Your task to perform on an android device: turn off notifications in google photos Image 0: 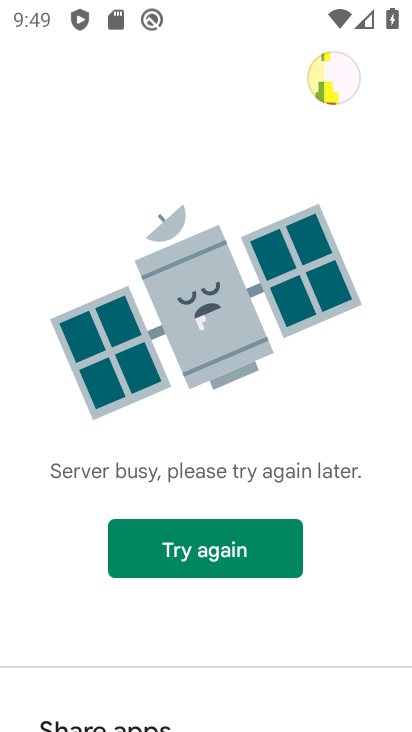
Step 0: press home button
Your task to perform on an android device: turn off notifications in google photos Image 1: 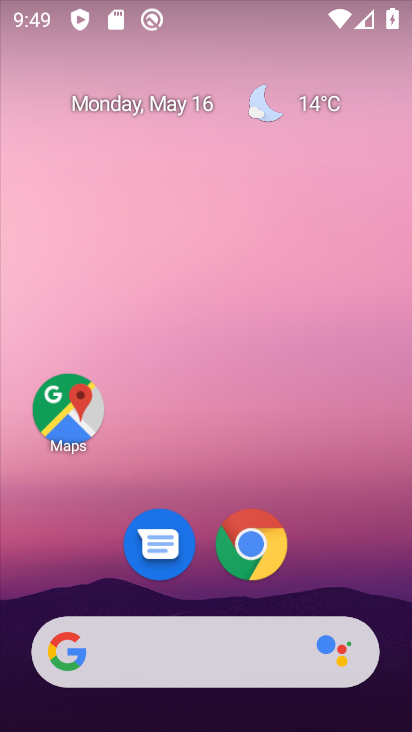
Step 1: drag from (325, 577) to (381, 176)
Your task to perform on an android device: turn off notifications in google photos Image 2: 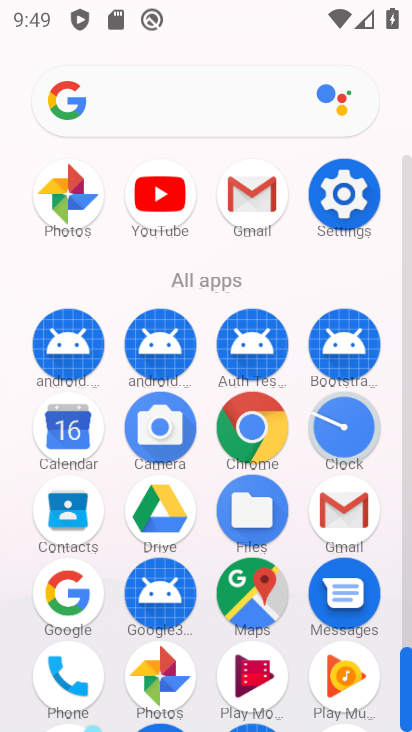
Step 2: click (78, 196)
Your task to perform on an android device: turn off notifications in google photos Image 3: 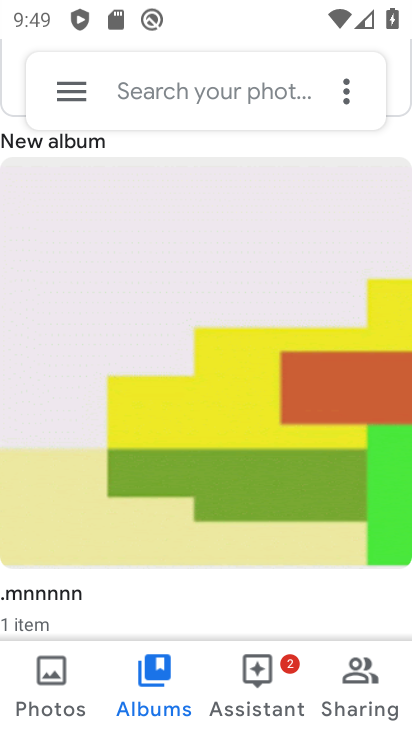
Step 3: click (64, 96)
Your task to perform on an android device: turn off notifications in google photos Image 4: 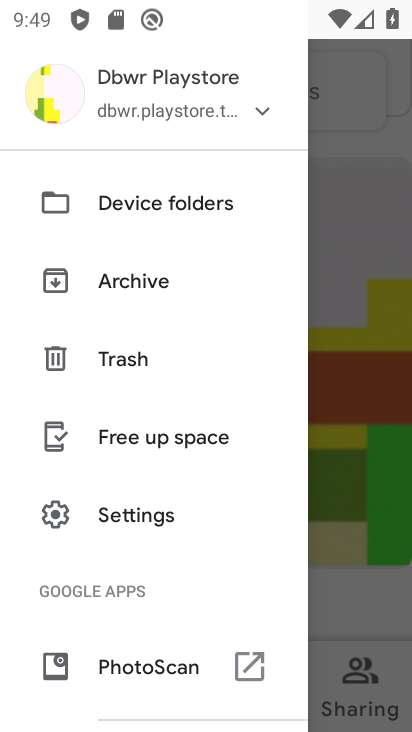
Step 4: click (156, 520)
Your task to perform on an android device: turn off notifications in google photos Image 5: 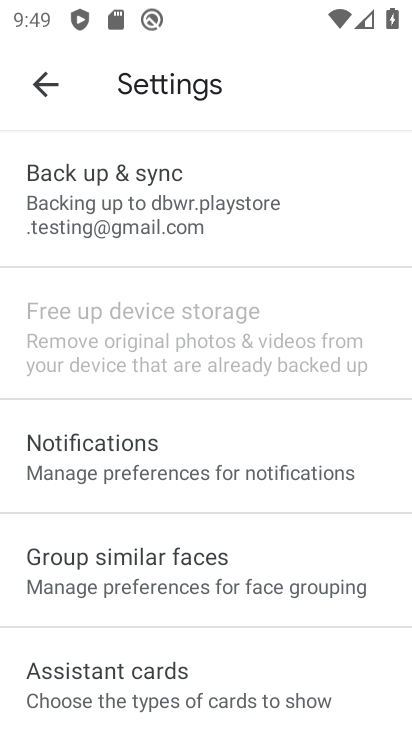
Step 5: click (167, 480)
Your task to perform on an android device: turn off notifications in google photos Image 6: 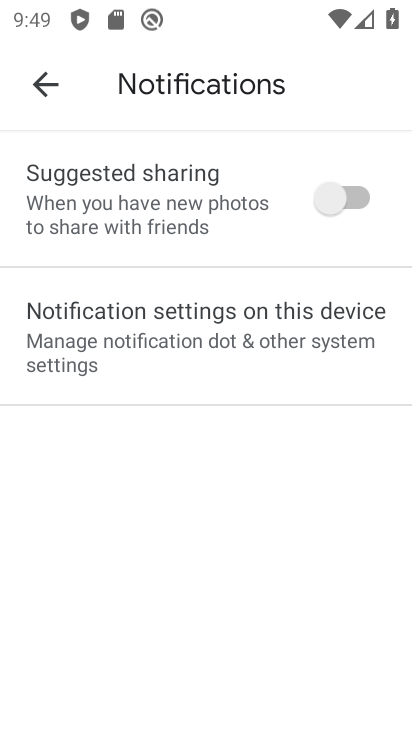
Step 6: click (254, 335)
Your task to perform on an android device: turn off notifications in google photos Image 7: 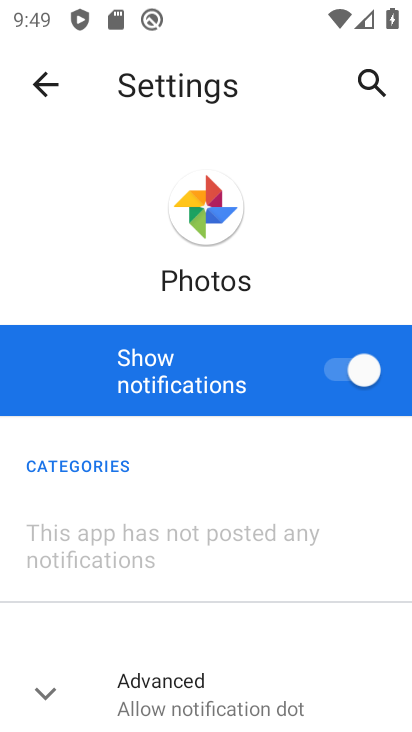
Step 7: click (362, 375)
Your task to perform on an android device: turn off notifications in google photos Image 8: 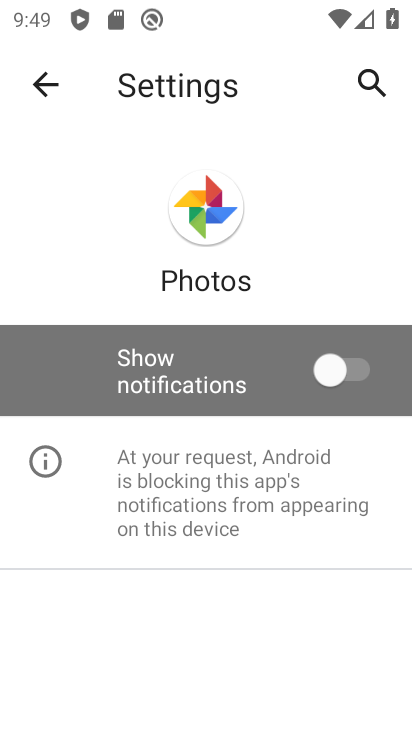
Step 8: task complete